Your task to perform on an android device: Search for "razer blackwidow" on target.com, select the first entry, and add it to the cart. Image 0: 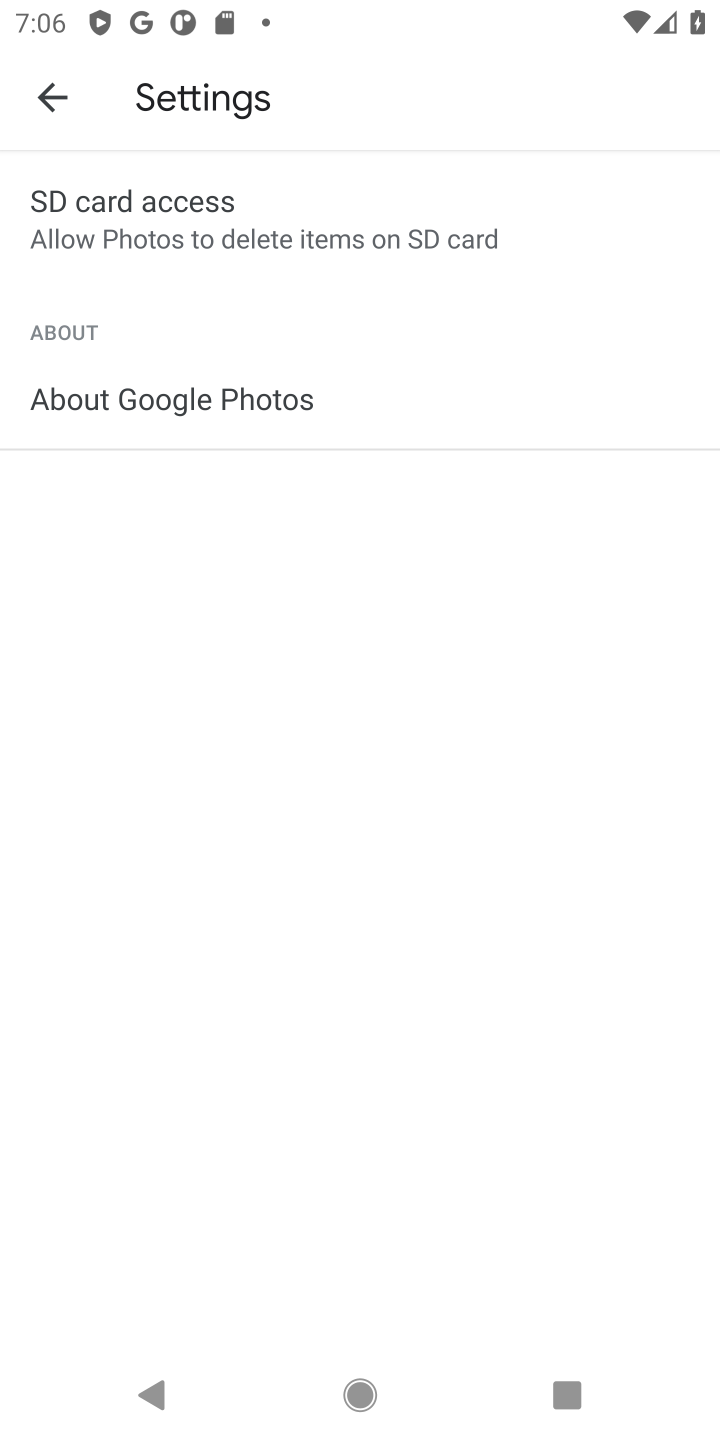
Step 0: press home button
Your task to perform on an android device: Search for "razer blackwidow" on target.com, select the first entry, and add it to the cart. Image 1: 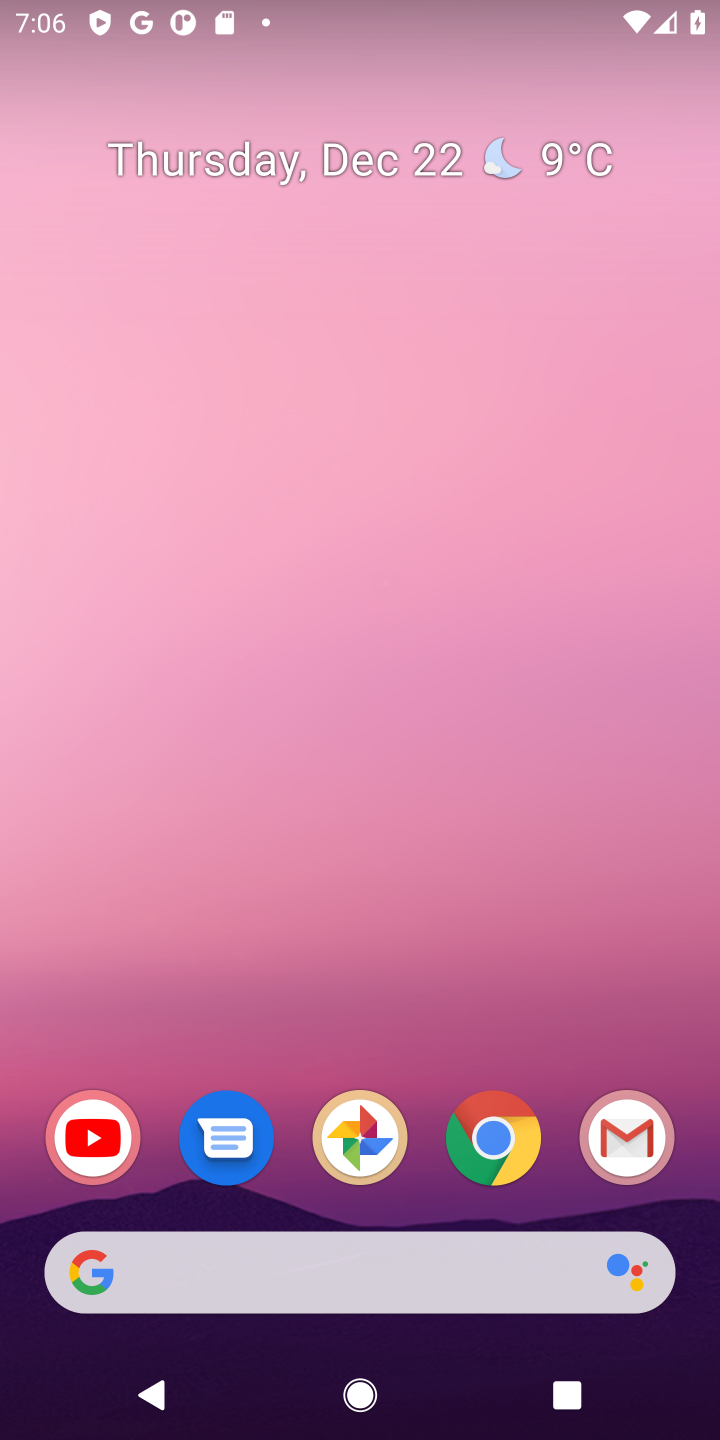
Step 1: click (490, 1147)
Your task to perform on an android device: Search for "razer blackwidow" on target.com, select the first entry, and add it to the cart. Image 2: 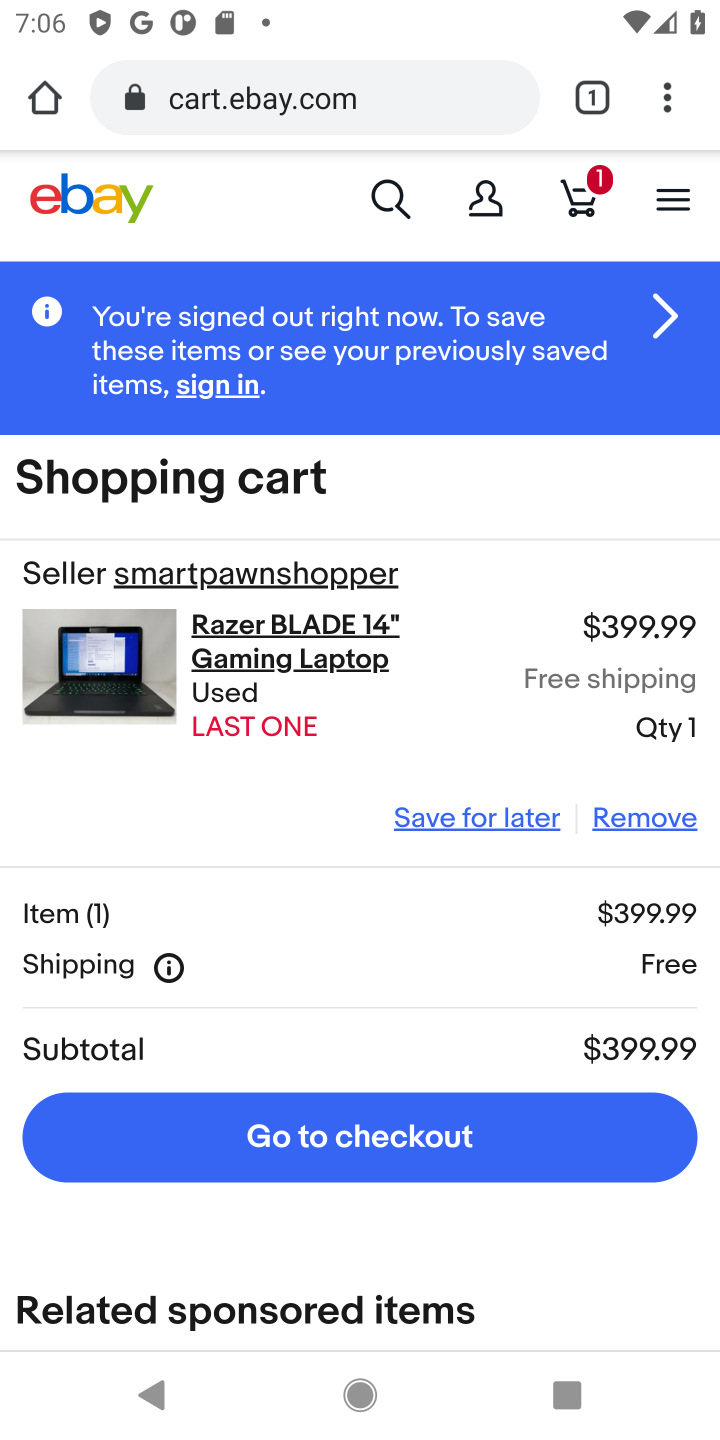
Step 2: click (363, 93)
Your task to perform on an android device: Search for "razer blackwidow" on target.com, select the first entry, and add it to the cart. Image 3: 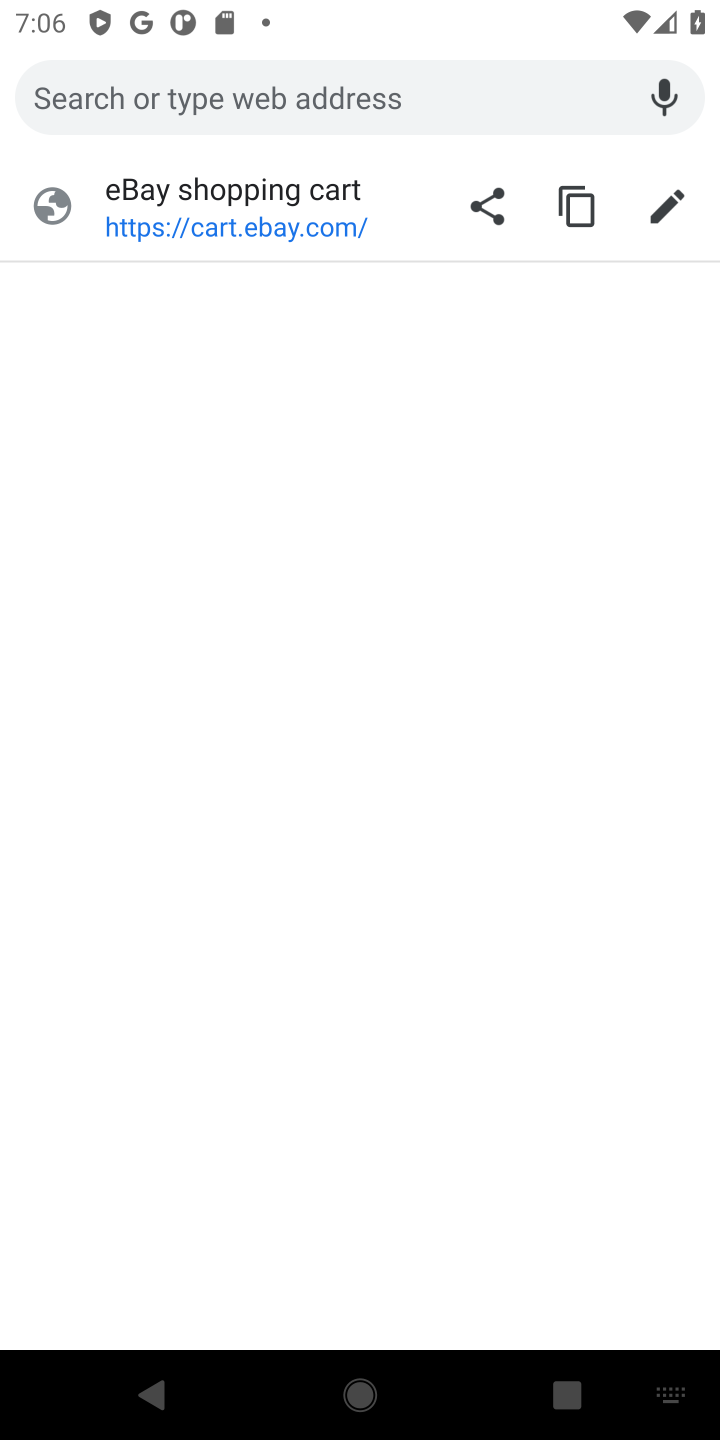
Step 3: press enter
Your task to perform on an android device: Search for "razer blackwidow" on target.com, select the first entry, and add it to the cart. Image 4: 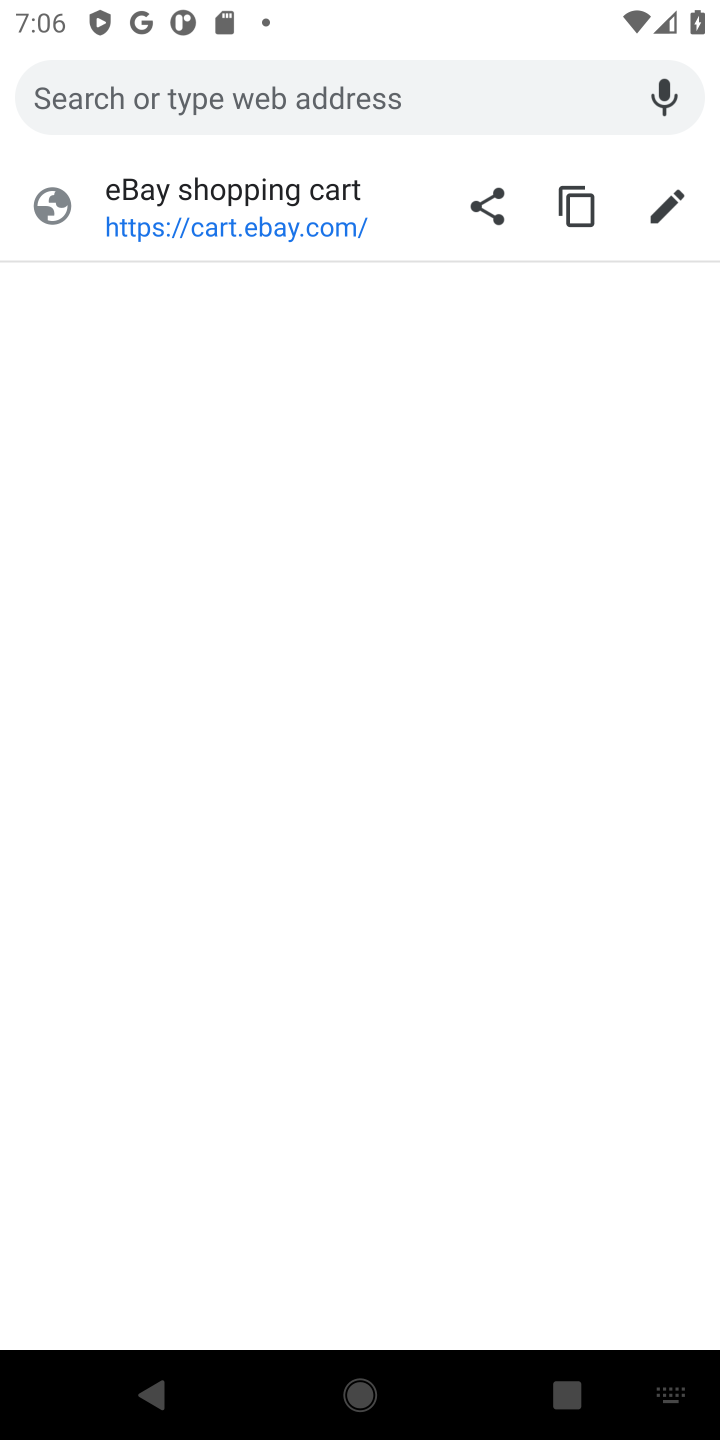
Step 4: type "razer blade"
Your task to perform on an android device: Search for "razer blackwidow" on target.com, select the first entry, and add it to the cart. Image 5: 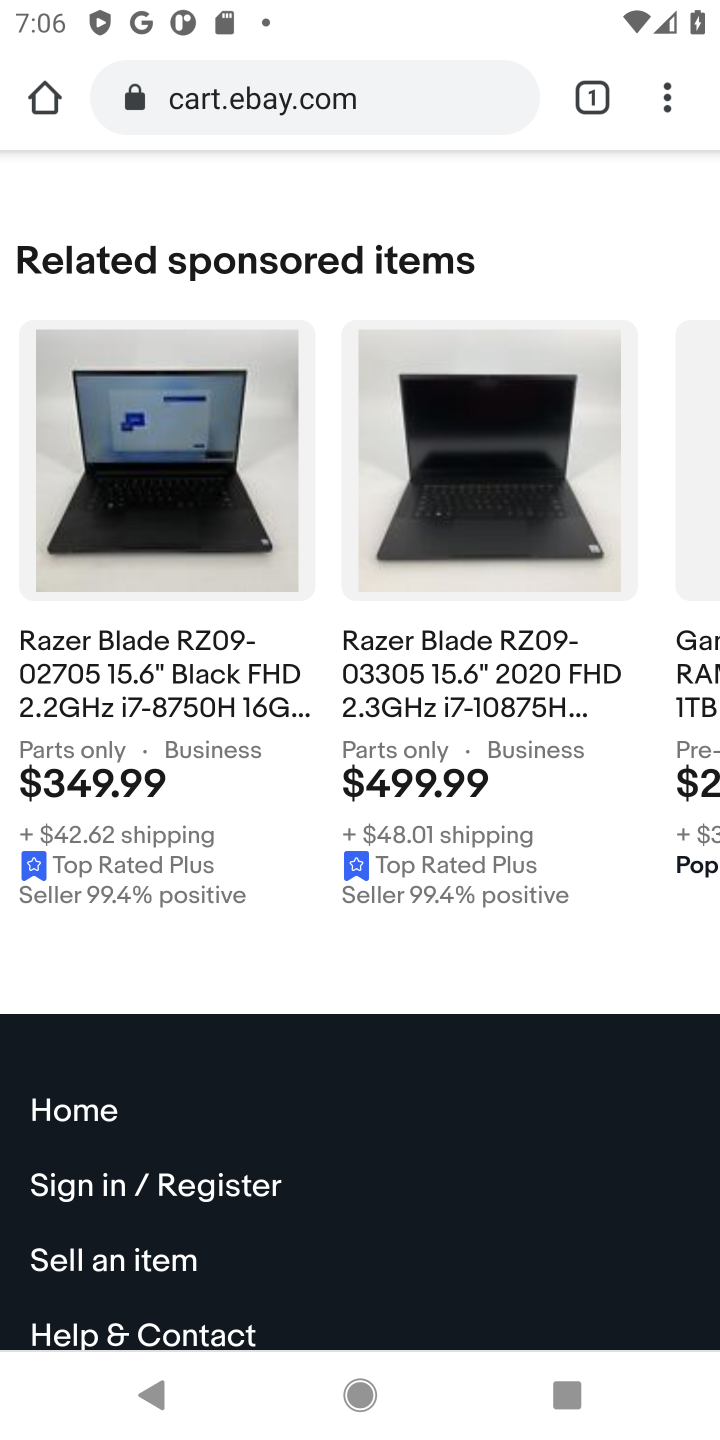
Step 5: click (384, 97)
Your task to perform on an android device: Search for "razer blackwidow" on target.com, select the first entry, and add it to the cart. Image 6: 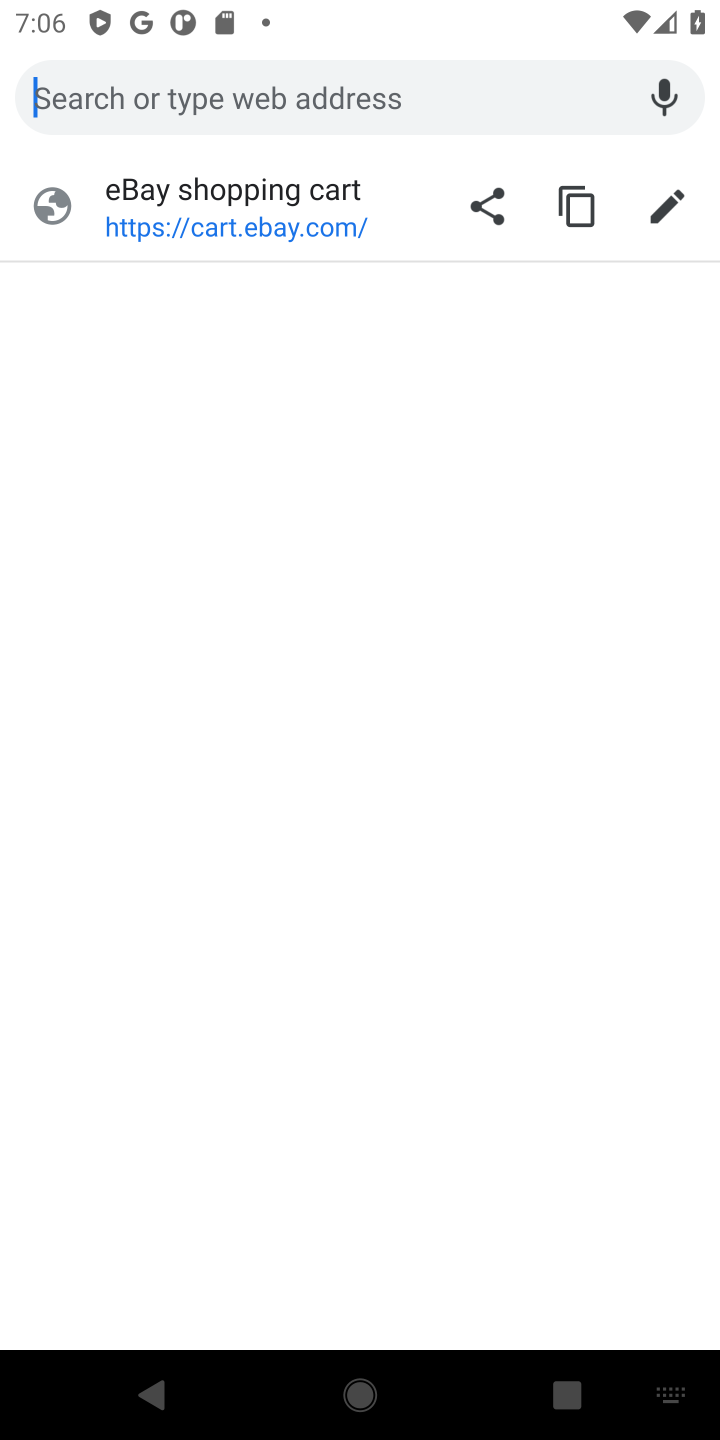
Step 6: type "razer blade"
Your task to perform on an android device: Search for "razer blackwidow" on target.com, select the first entry, and add it to the cart. Image 7: 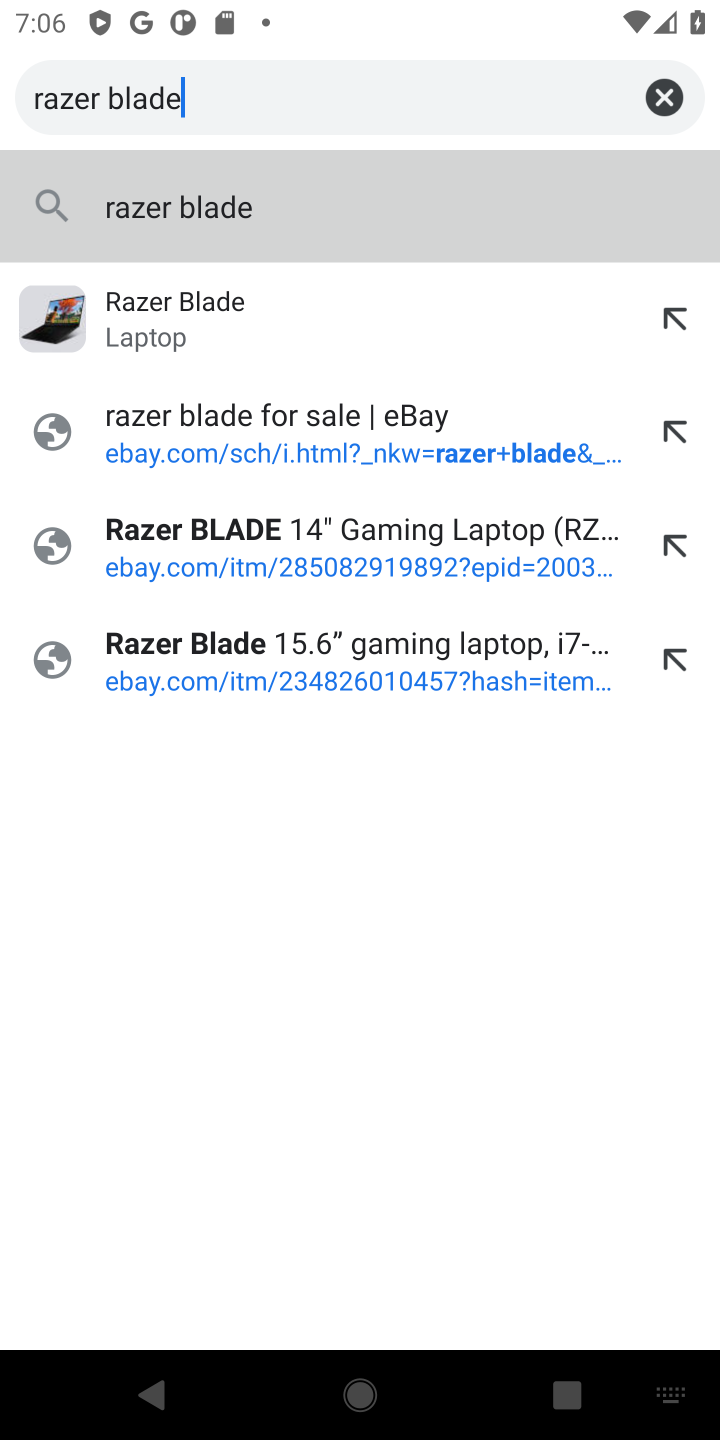
Step 7: click (657, 95)
Your task to perform on an android device: Search for "razer blackwidow" on target.com, select the first entry, and add it to the cart. Image 8: 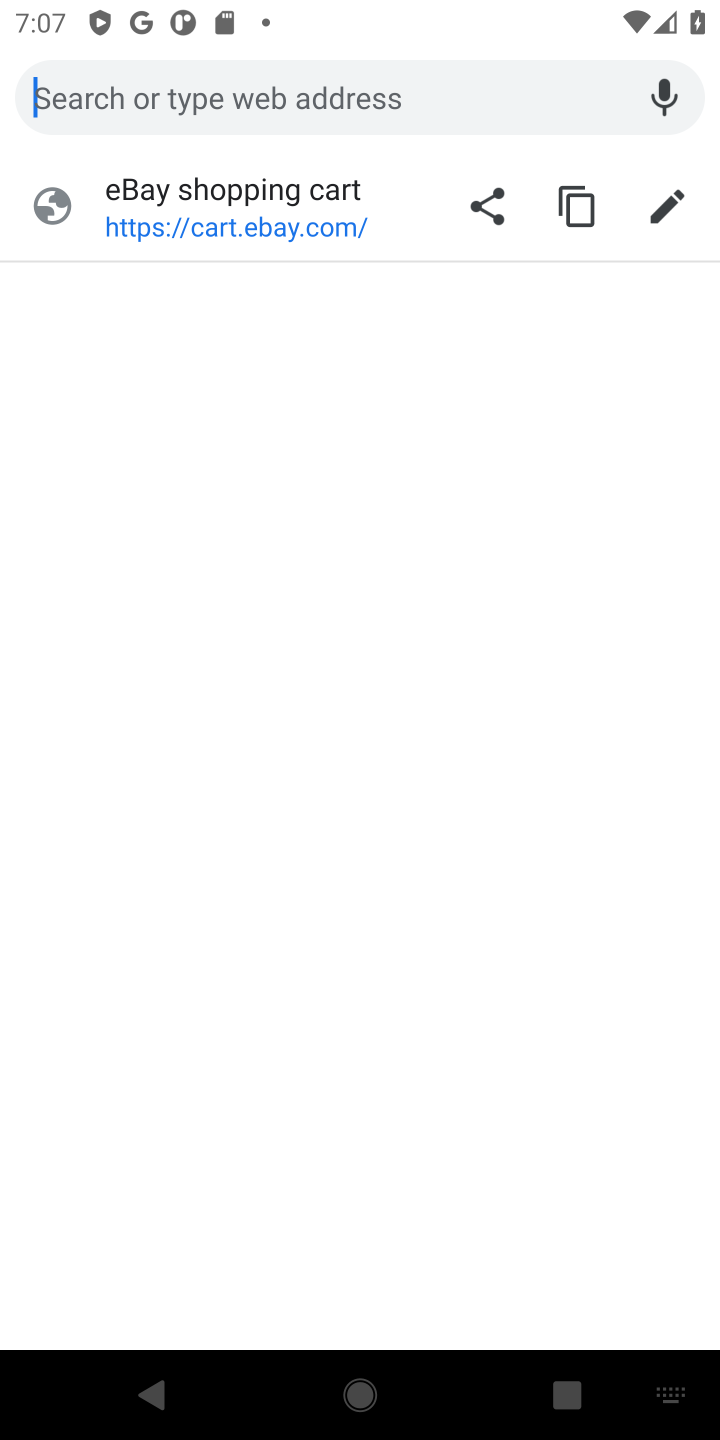
Step 8: type "target.com"
Your task to perform on an android device: Search for "razer blackwidow" on target.com, select the first entry, and add it to the cart. Image 9: 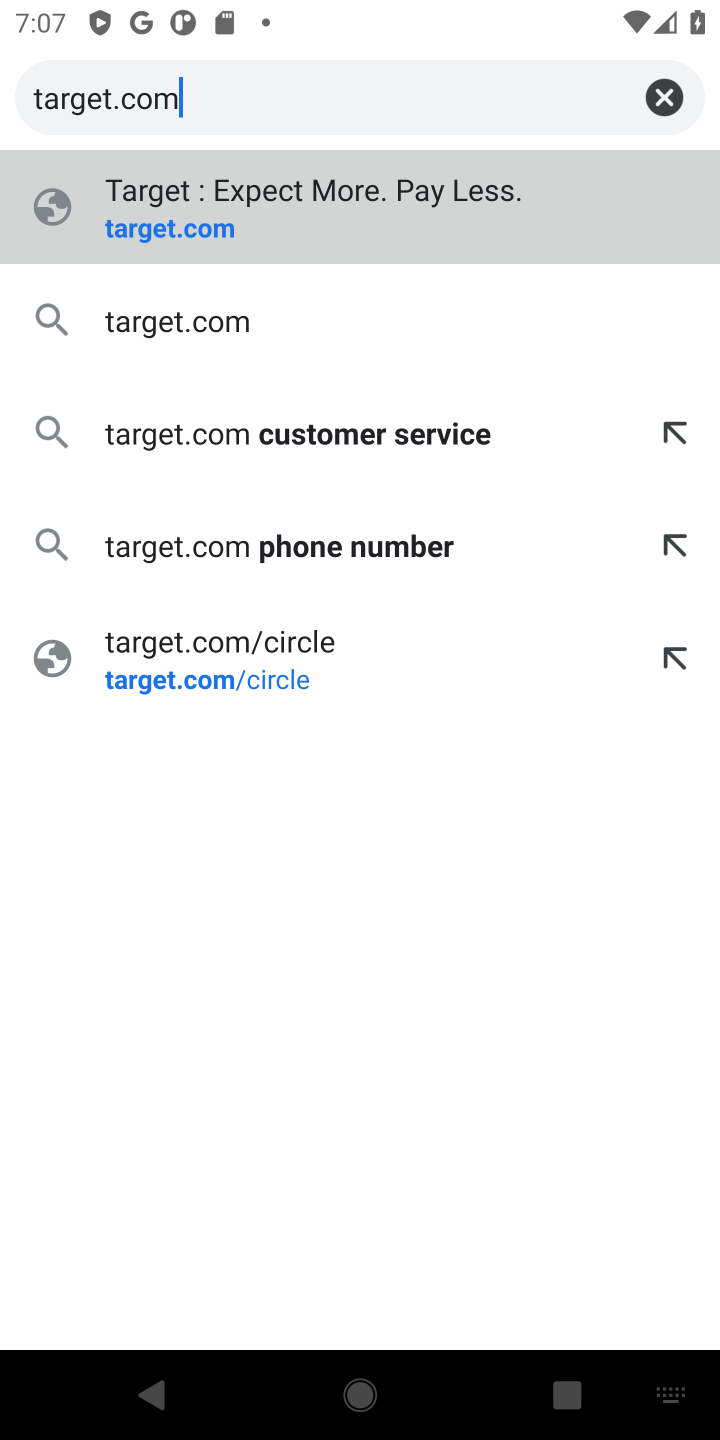
Step 9: click (194, 320)
Your task to perform on an android device: Search for "razer blackwidow" on target.com, select the first entry, and add it to the cart. Image 10: 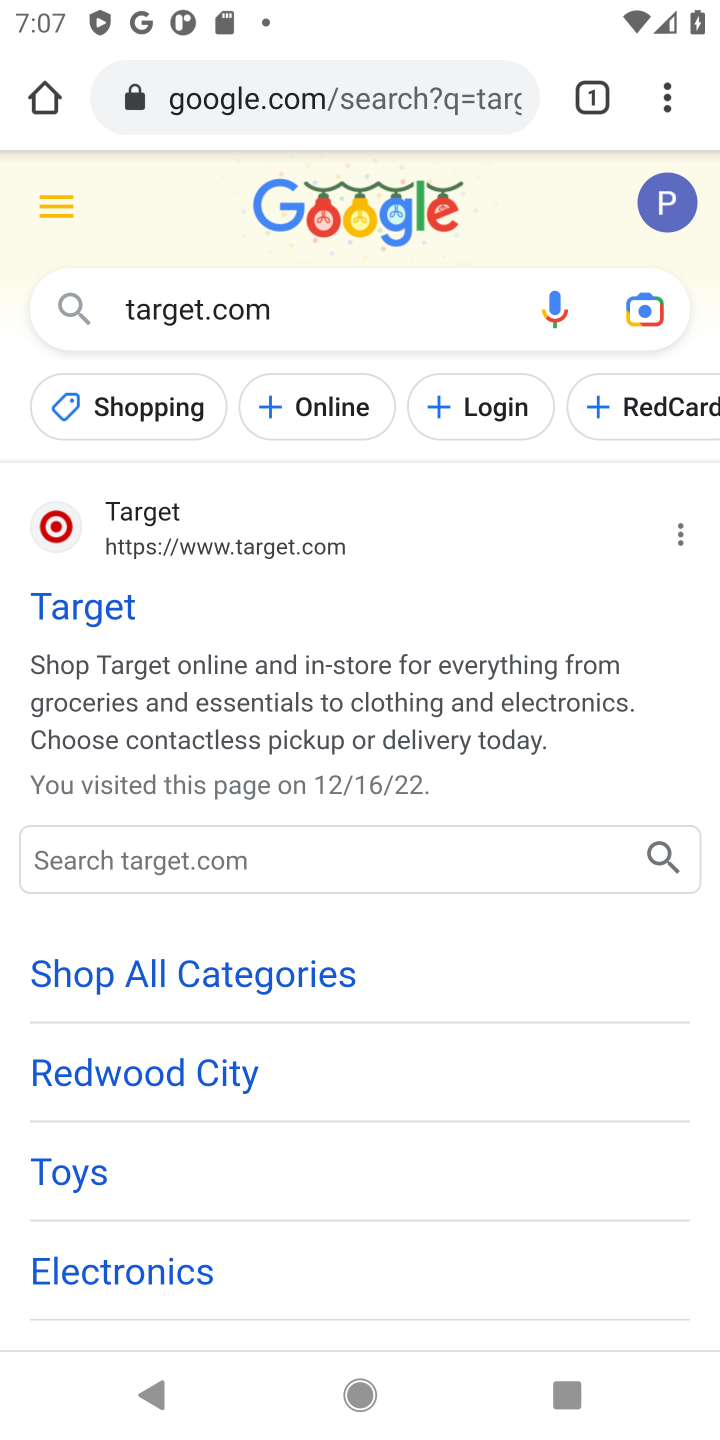
Step 10: click (276, 545)
Your task to perform on an android device: Search for "razer blackwidow" on target.com, select the first entry, and add it to the cart. Image 11: 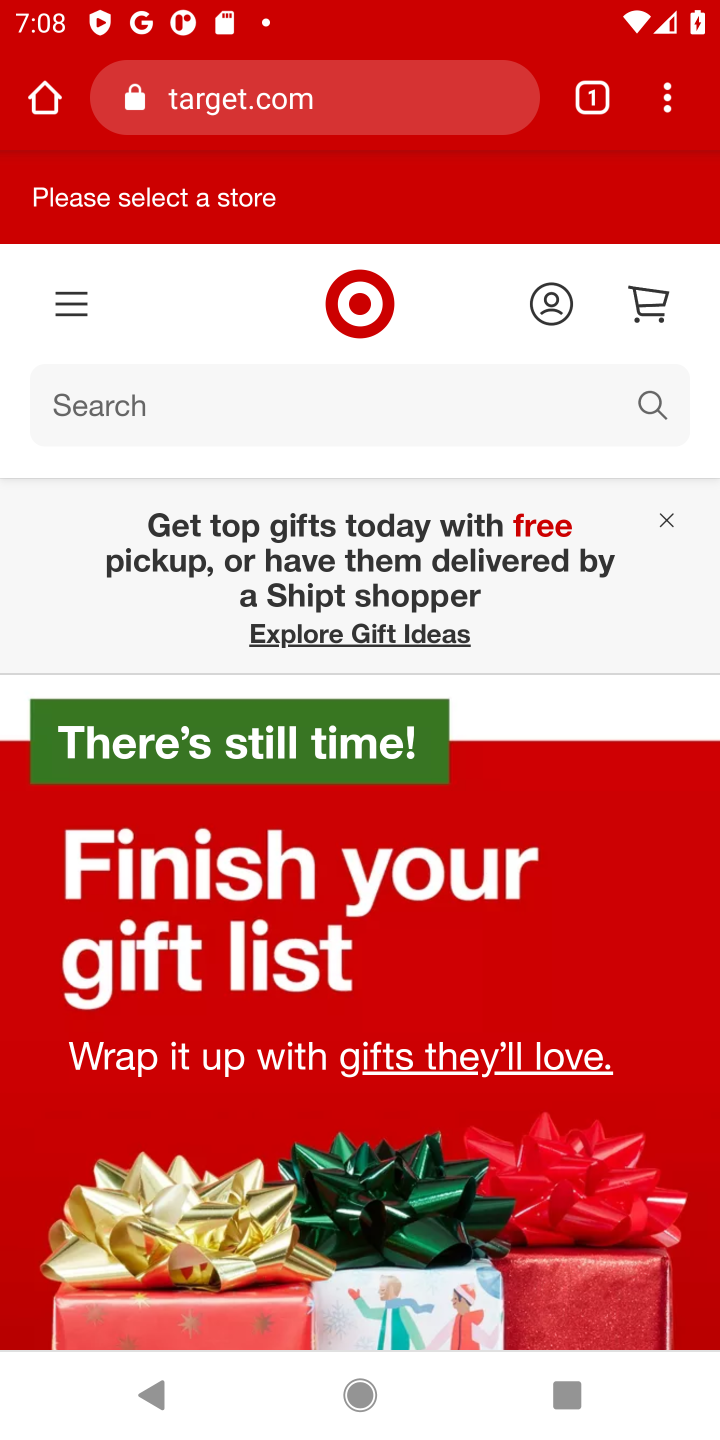
Step 11: click (639, 402)
Your task to perform on an android device: Search for "razer blackwidow" on target.com, select the first entry, and add it to the cart. Image 12: 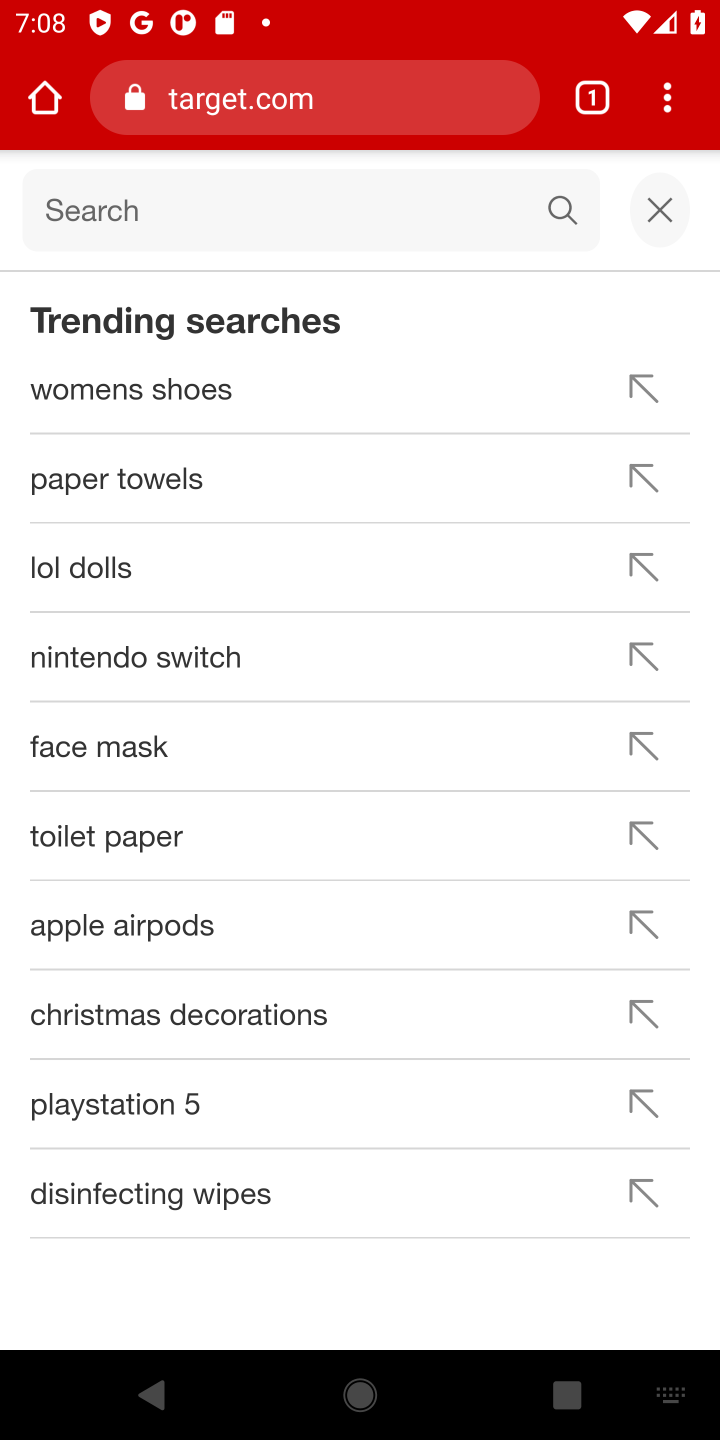
Step 12: type "razer blackwidow"
Your task to perform on an android device: Search for "razer blackwidow" on target.com, select the first entry, and add it to the cart. Image 13: 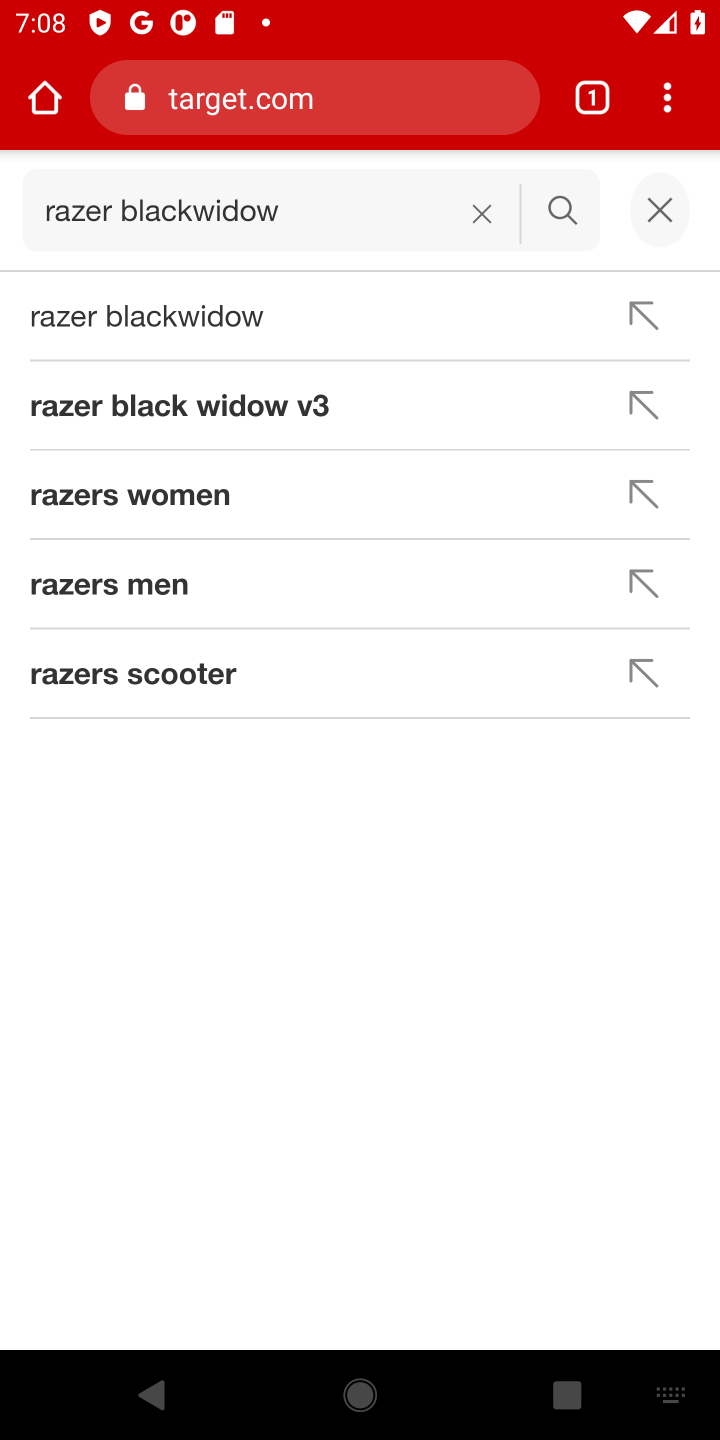
Step 13: click (563, 214)
Your task to perform on an android device: Search for "razer blackwidow" on target.com, select the first entry, and add it to the cart. Image 14: 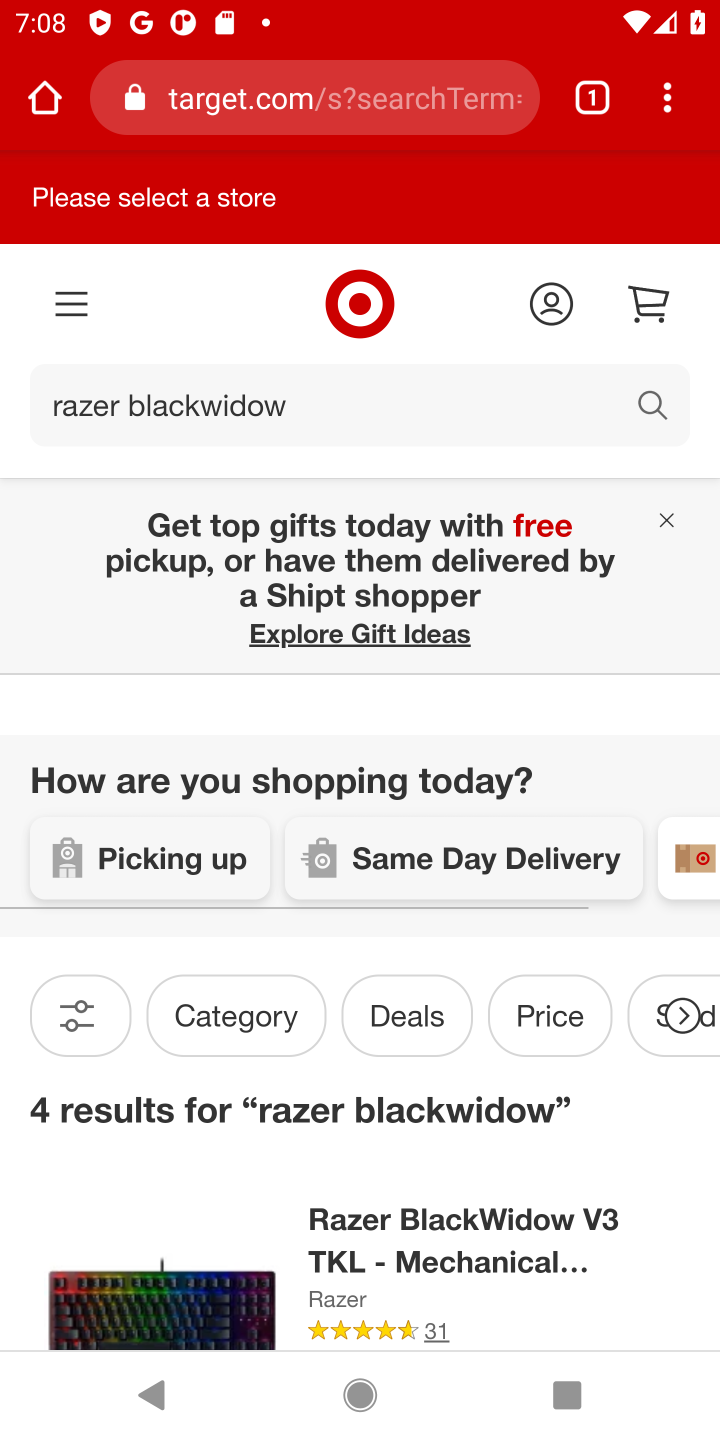
Step 14: drag from (483, 1198) to (514, 737)
Your task to perform on an android device: Search for "razer blackwidow" on target.com, select the first entry, and add it to the cart. Image 15: 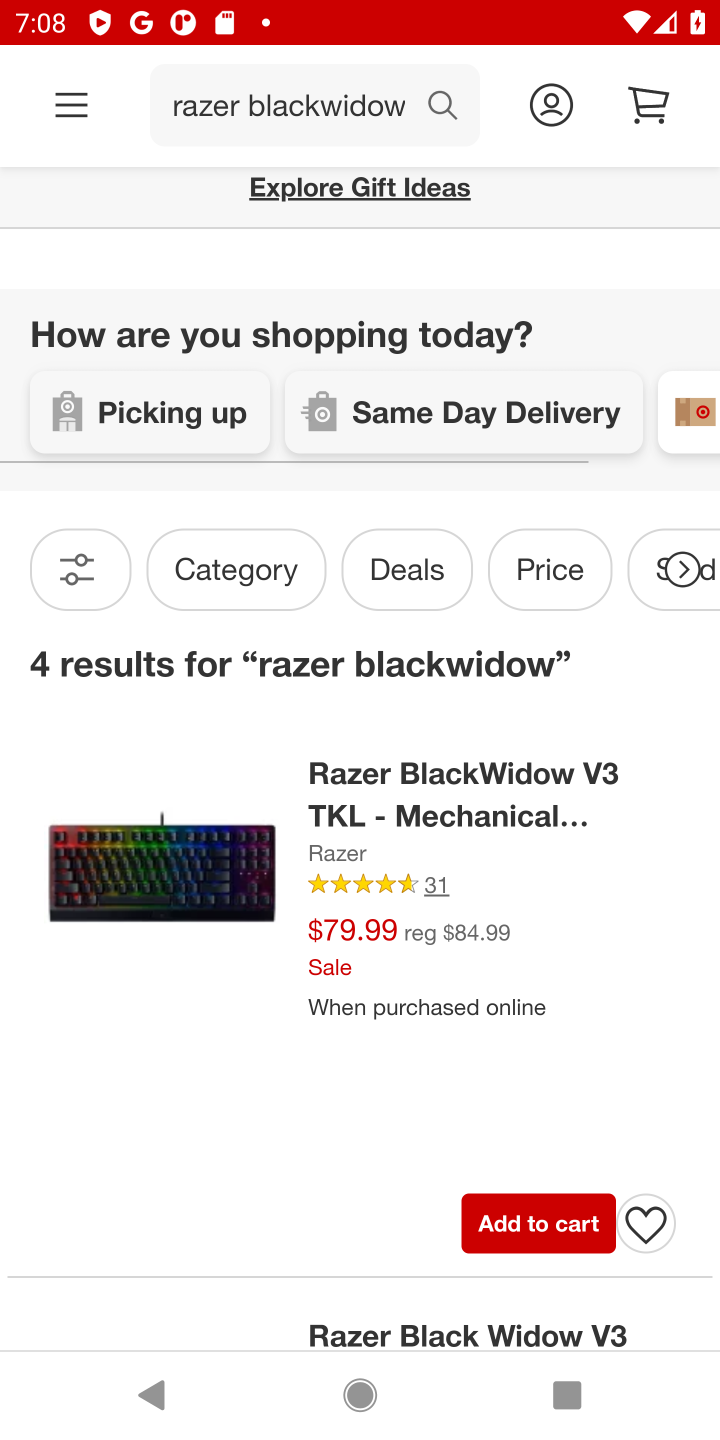
Step 15: click (155, 901)
Your task to perform on an android device: Search for "razer blackwidow" on target.com, select the first entry, and add it to the cart. Image 16: 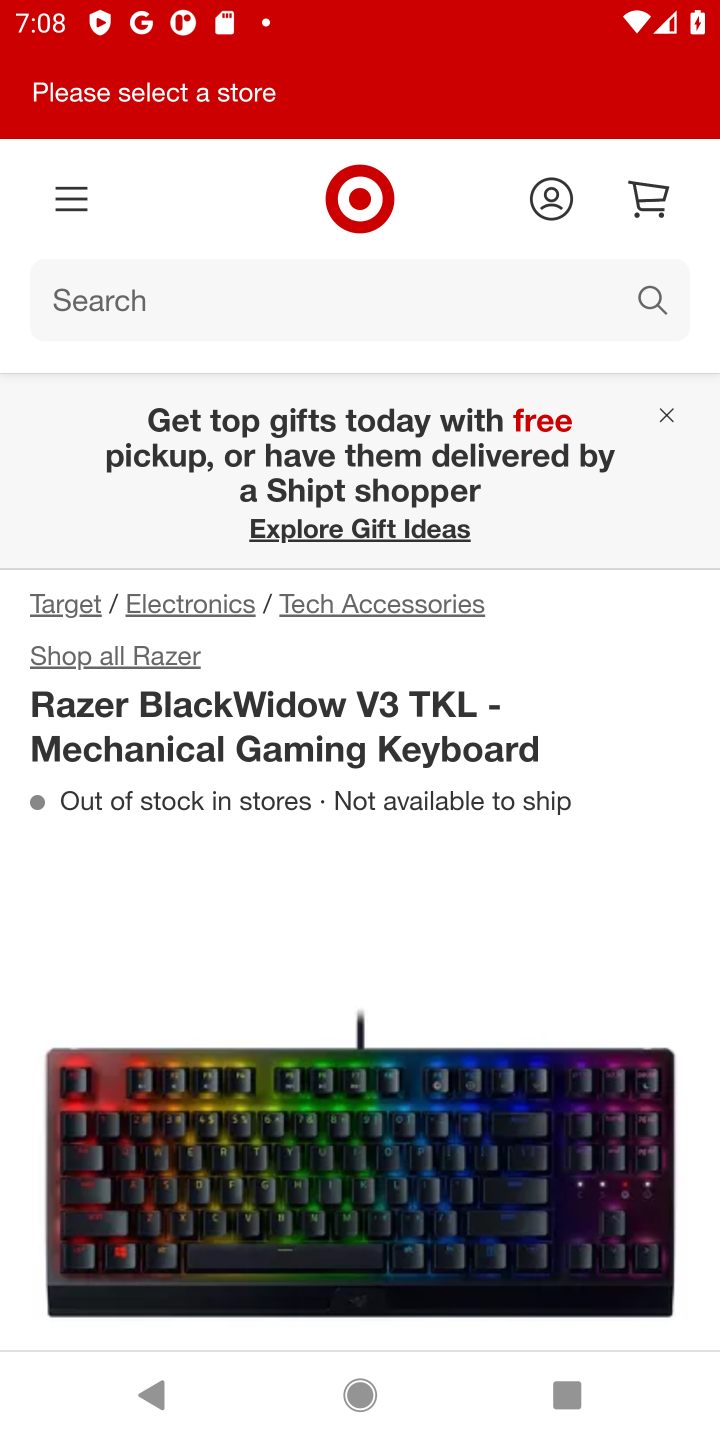
Step 16: drag from (577, 778) to (576, 119)
Your task to perform on an android device: Search for "razer blackwidow" on target.com, select the first entry, and add it to the cart. Image 17: 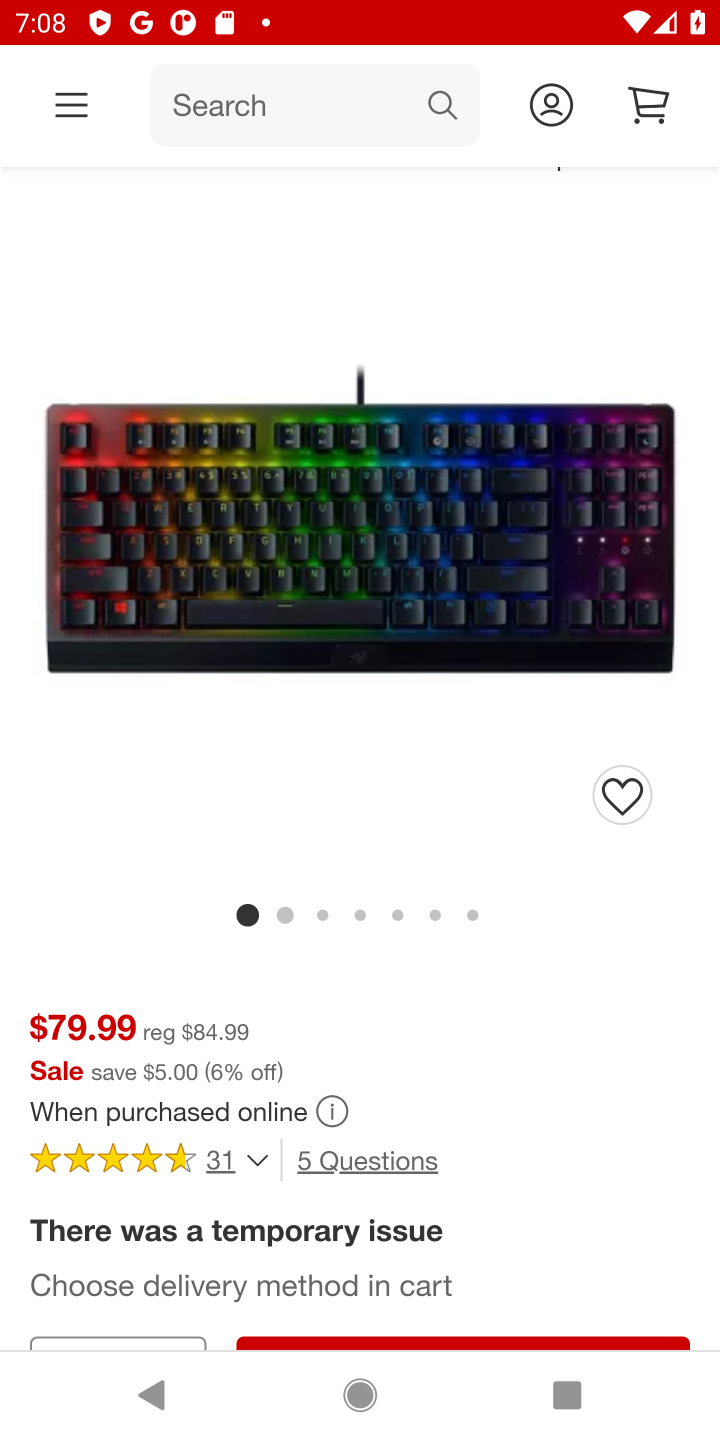
Step 17: drag from (574, 1089) to (608, 554)
Your task to perform on an android device: Search for "razer blackwidow" on target.com, select the first entry, and add it to the cart. Image 18: 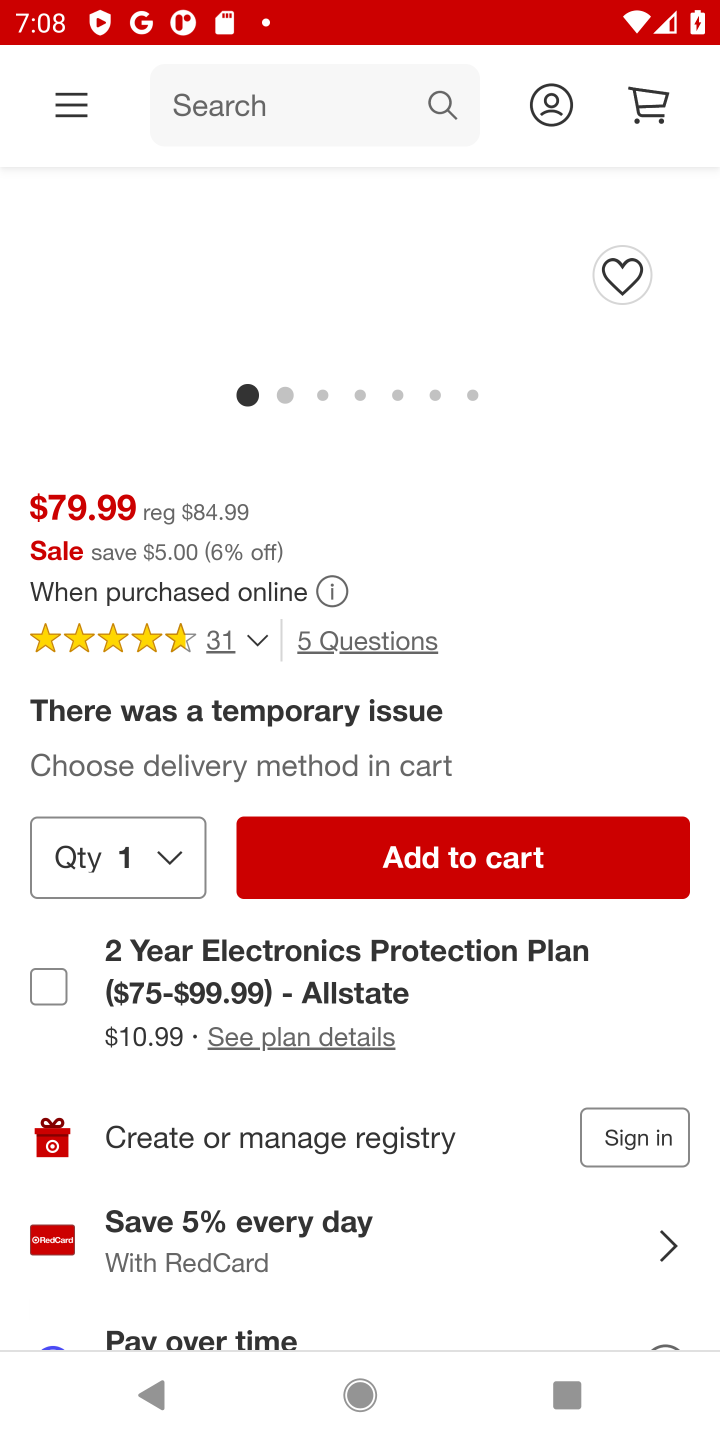
Step 18: click (475, 855)
Your task to perform on an android device: Search for "razer blackwidow" on target.com, select the first entry, and add it to the cart. Image 19: 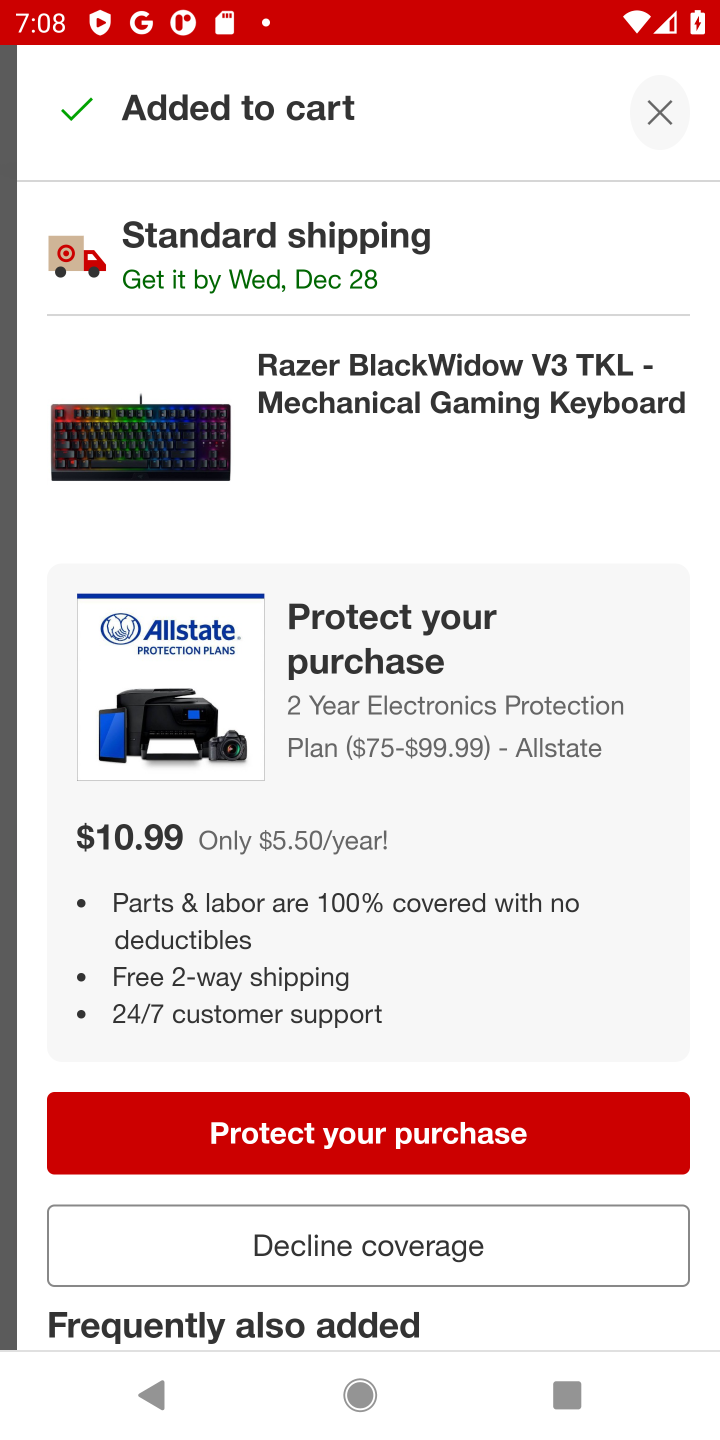
Step 19: click (664, 113)
Your task to perform on an android device: Search for "razer blackwidow" on target.com, select the first entry, and add it to the cart. Image 20: 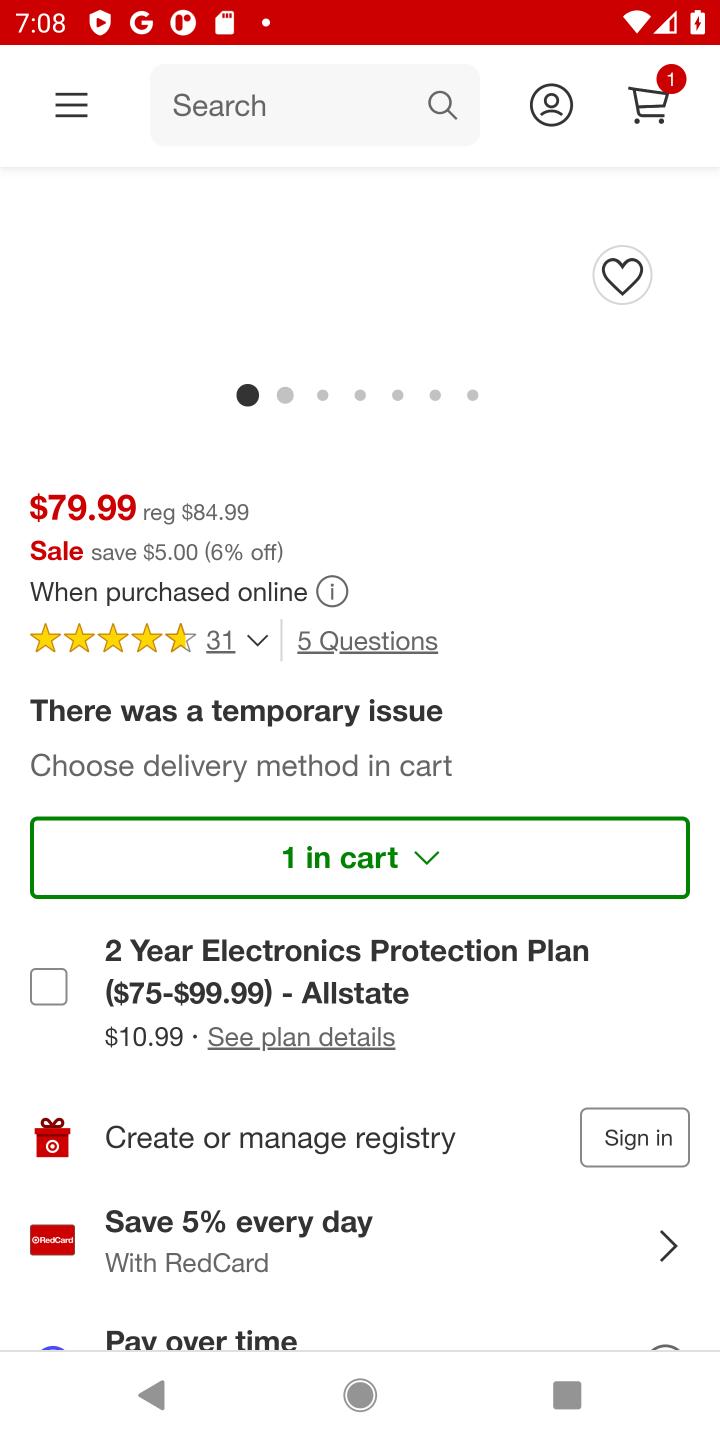
Step 20: click (656, 115)
Your task to perform on an android device: Search for "razer blackwidow" on target.com, select the first entry, and add it to the cart. Image 21: 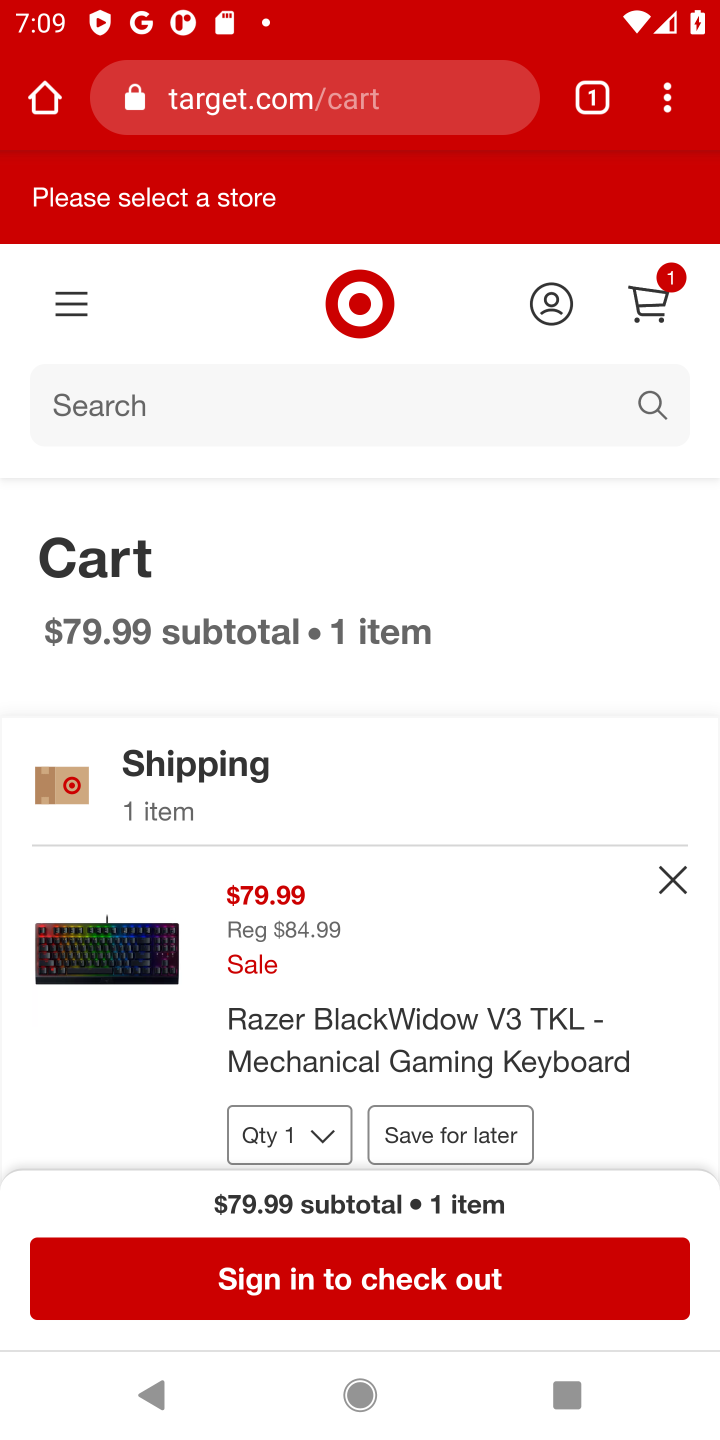
Step 21: task complete